Your task to perform on an android device: Check the news Image 0: 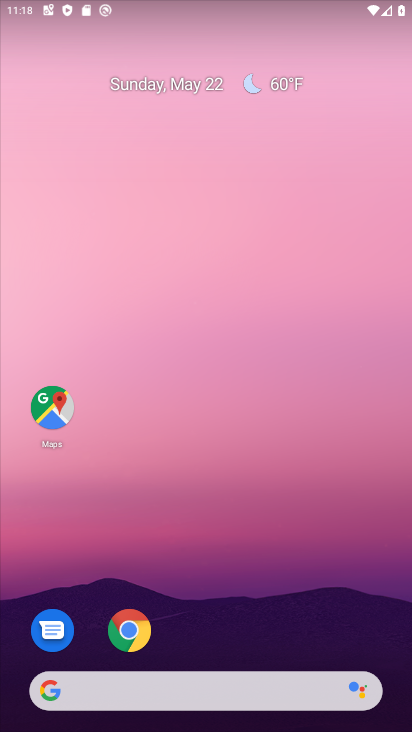
Step 0: drag from (260, 536) to (191, 165)
Your task to perform on an android device: Check the news Image 1: 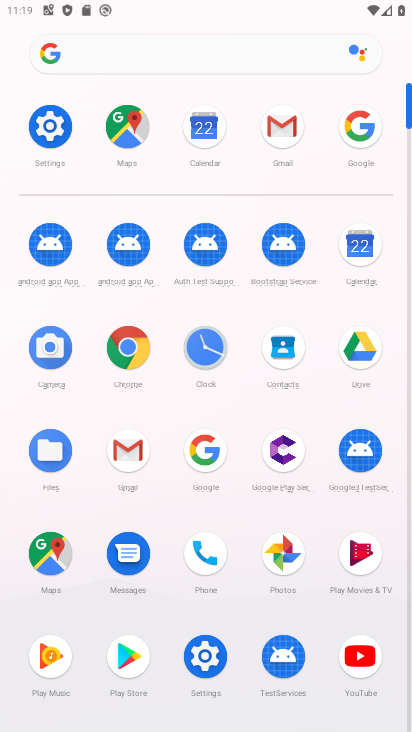
Step 1: click (200, 452)
Your task to perform on an android device: Check the news Image 2: 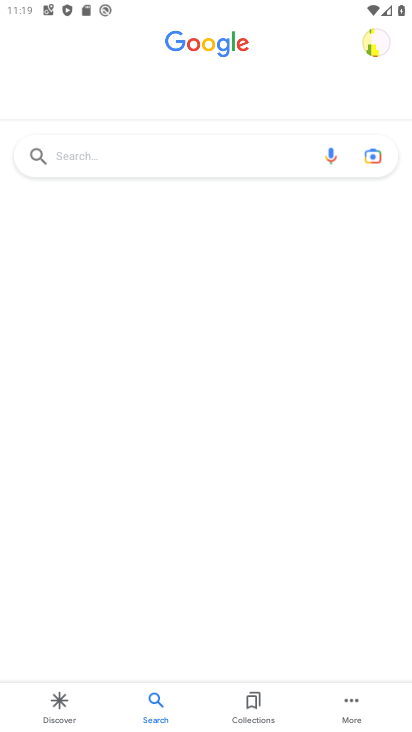
Step 2: click (108, 160)
Your task to perform on an android device: Check the news Image 3: 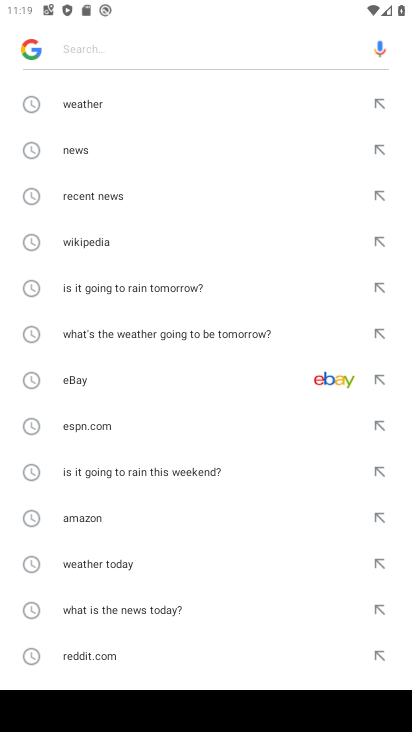
Step 3: click (79, 150)
Your task to perform on an android device: Check the news Image 4: 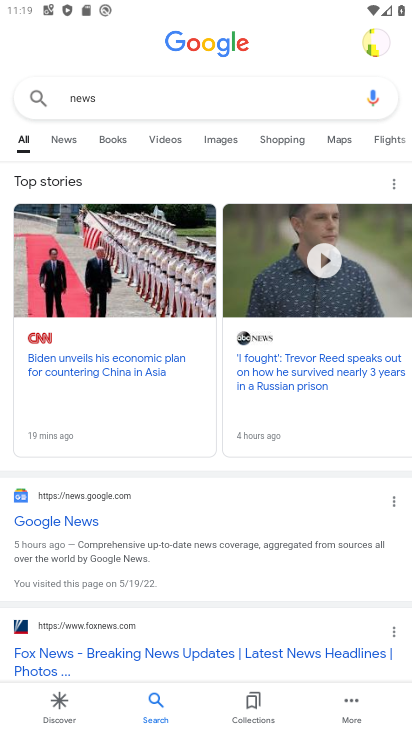
Step 4: task complete